Your task to perform on an android device: change the clock display to digital Image 0: 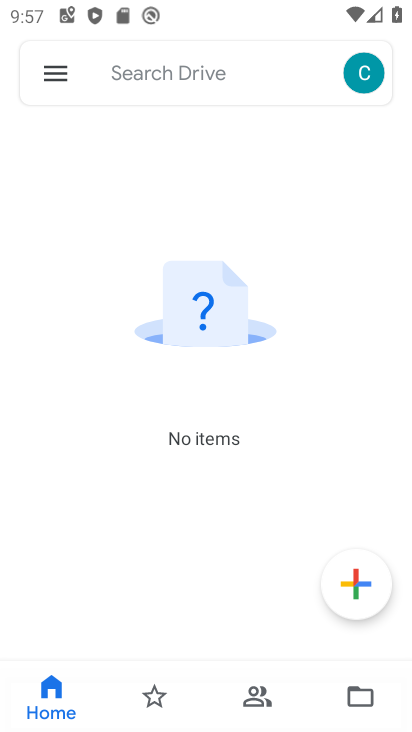
Step 0: press home button
Your task to perform on an android device: change the clock display to digital Image 1: 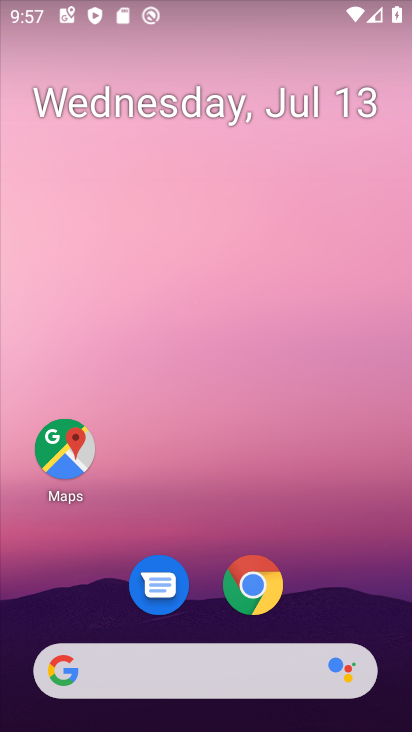
Step 1: drag from (343, 589) to (378, 34)
Your task to perform on an android device: change the clock display to digital Image 2: 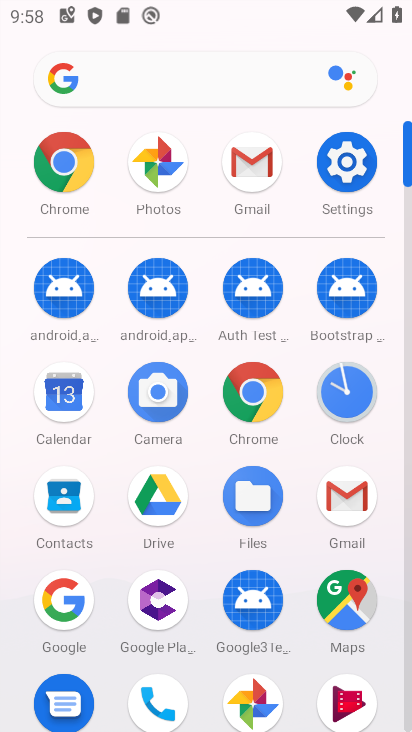
Step 2: click (342, 388)
Your task to perform on an android device: change the clock display to digital Image 3: 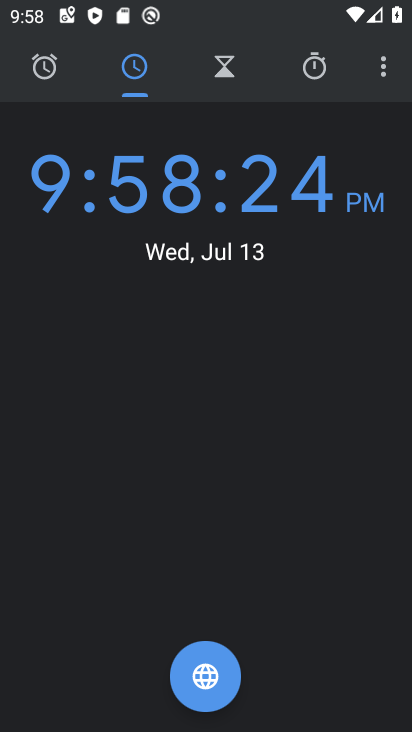
Step 3: task complete